Your task to perform on an android device: set an alarm Image 0: 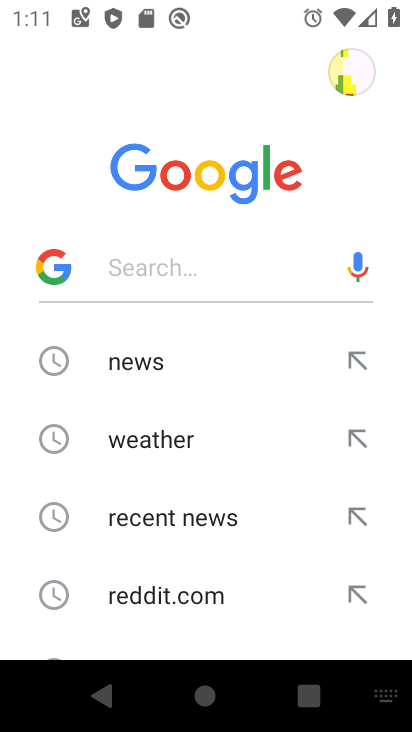
Step 0: press home button
Your task to perform on an android device: set an alarm Image 1: 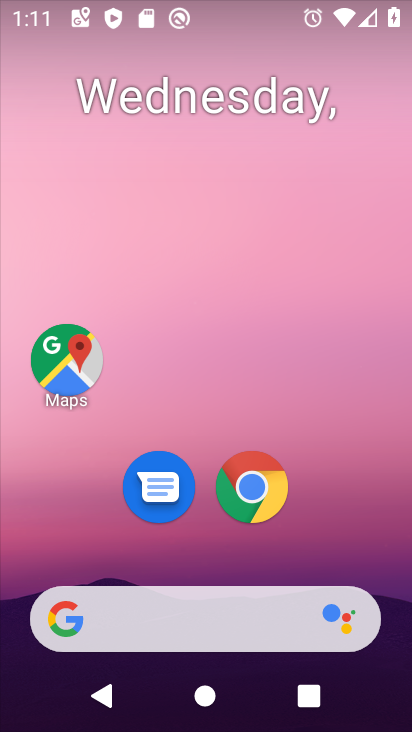
Step 1: drag from (232, 543) to (282, 39)
Your task to perform on an android device: set an alarm Image 2: 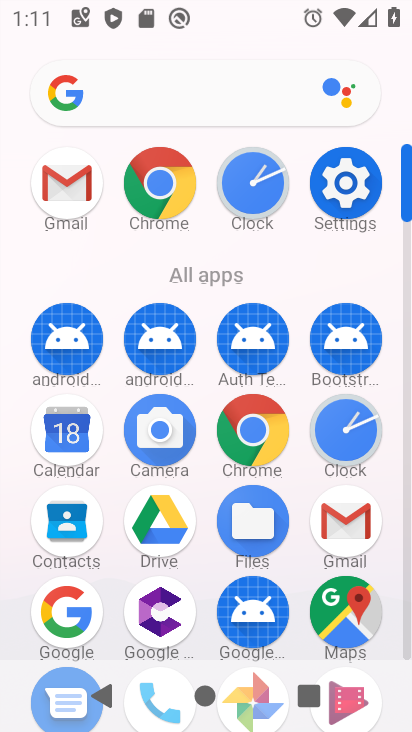
Step 2: click (366, 430)
Your task to perform on an android device: set an alarm Image 3: 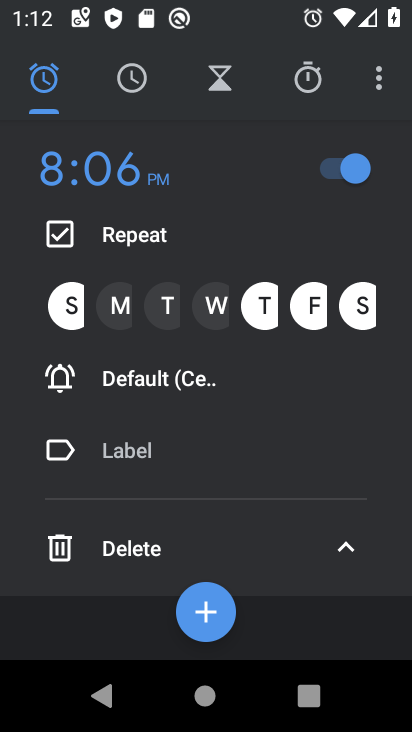
Step 3: click (353, 544)
Your task to perform on an android device: set an alarm Image 4: 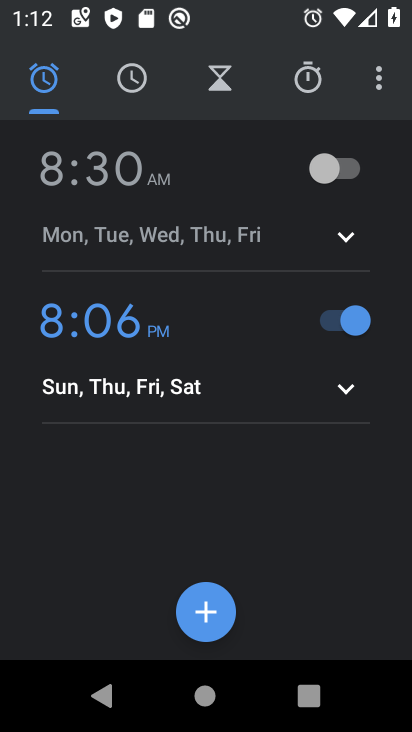
Step 4: click (363, 171)
Your task to perform on an android device: set an alarm Image 5: 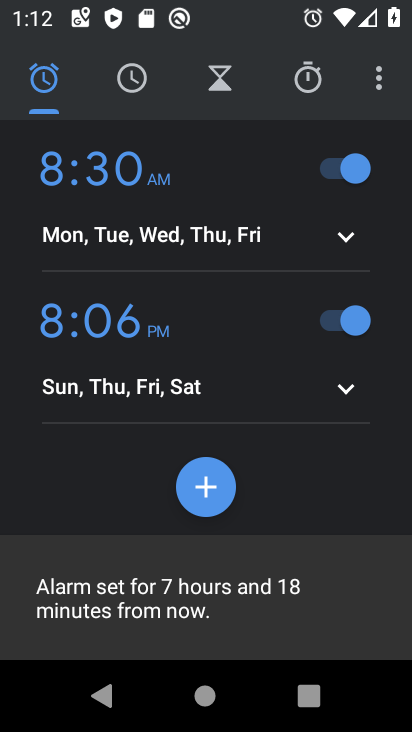
Step 5: task complete